Your task to perform on an android device: Go to Yahoo.com Image 0: 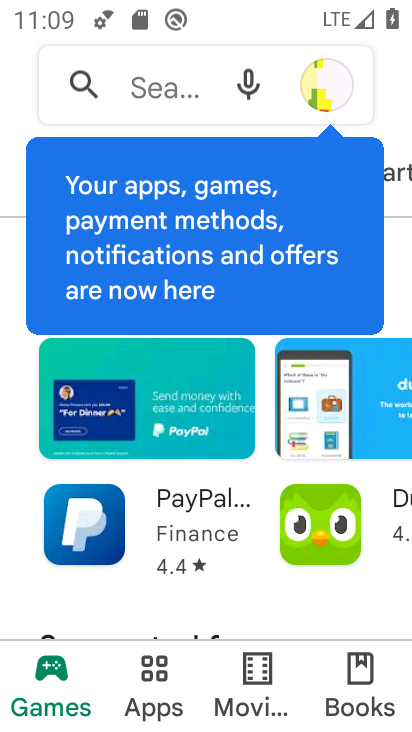
Step 0: press home button
Your task to perform on an android device: Go to Yahoo.com Image 1: 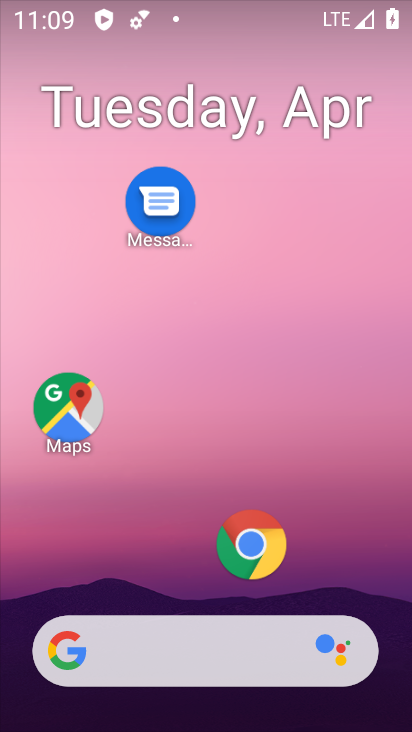
Step 1: click (254, 566)
Your task to perform on an android device: Go to Yahoo.com Image 2: 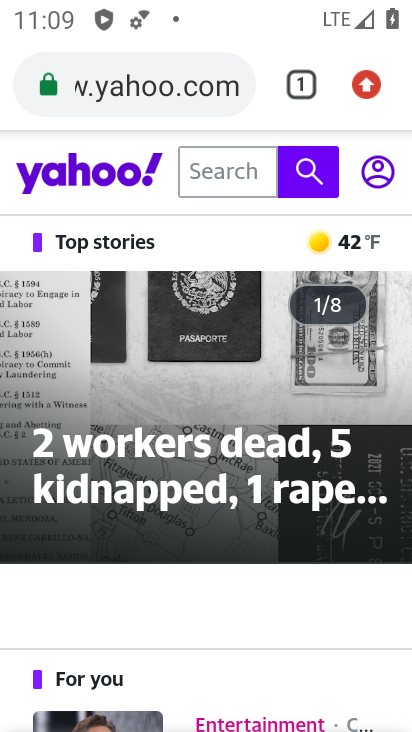
Step 2: task complete